Your task to perform on an android device: delete browsing data in the chrome app Image 0: 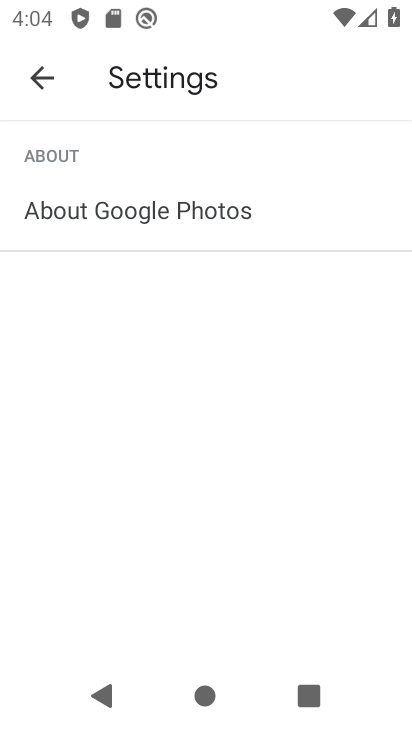
Step 0: press home button
Your task to perform on an android device: delete browsing data in the chrome app Image 1: 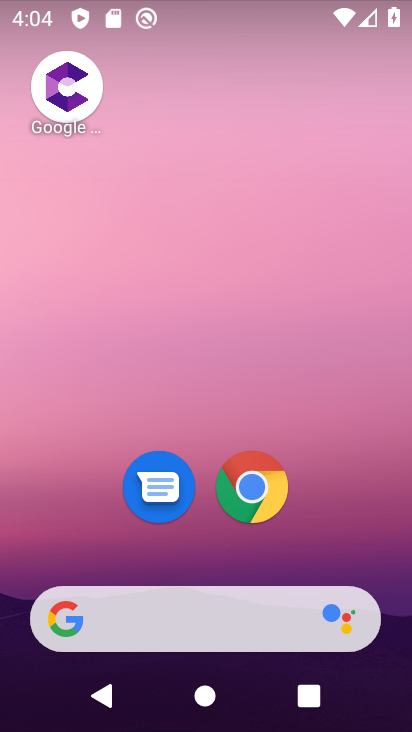
Step 1: drag from (356, 539) to (368, 104)
Your task to perform on an android device: delete browsing data in the chrome app Image 2: 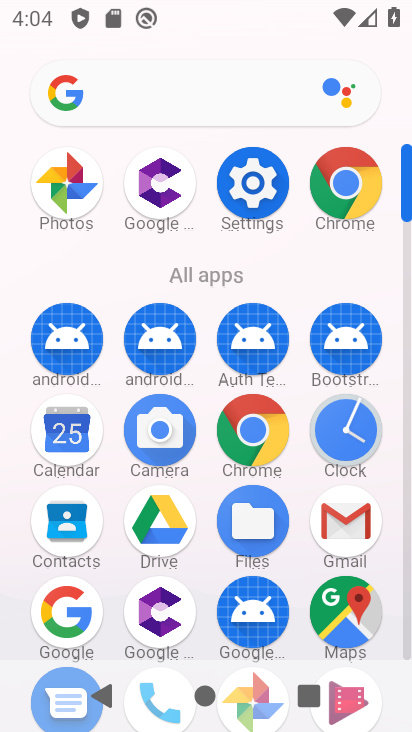
Step 2: click (359, 205)
Your task to perform on an android device: delete browsing data in the chrome app Image 3: 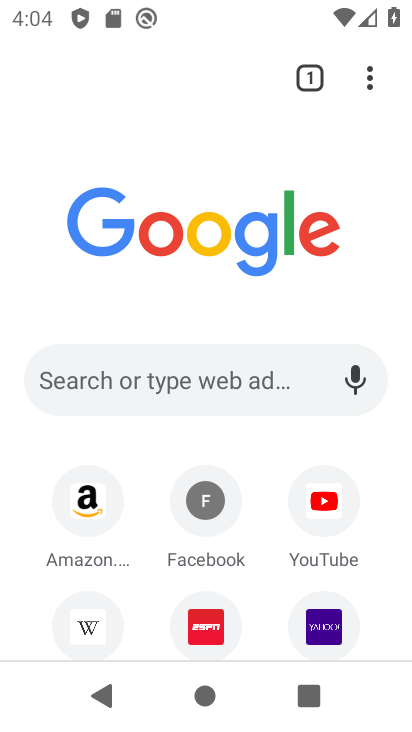
Step 3: click (369, 76)
Your task to perform on an android device: delete browsing data in the chrome app Image 4: 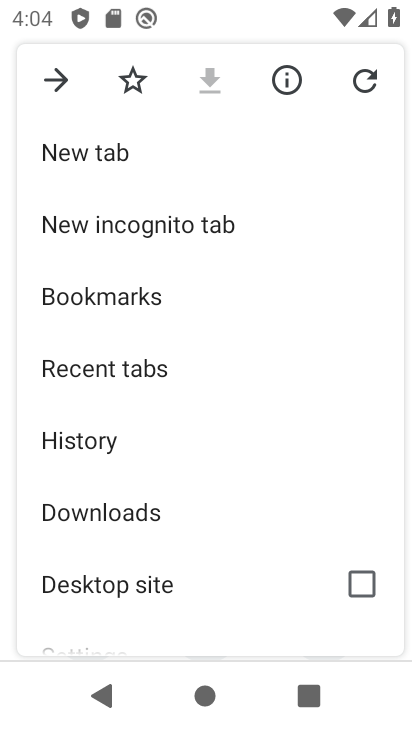
Step 4: drag from (284, 482) to (275, 346)
Your task to perform on an android device: delete browsing data in the chrome app Image 5: 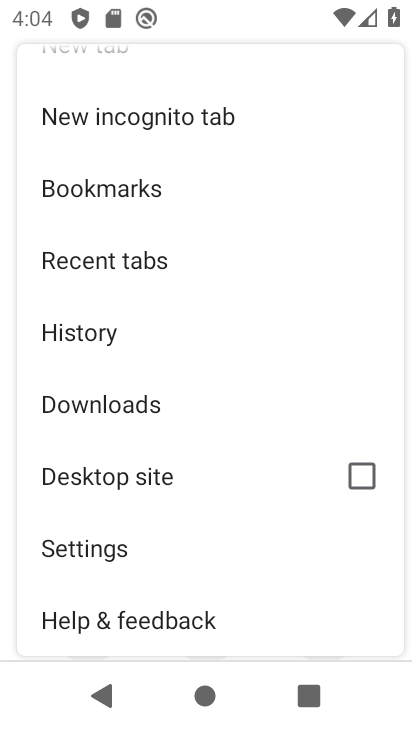
Step 5: drag from (275, 517) to (272, 397)
Your task to perform on an android device: delete browsing data in the chrome app Image 6: 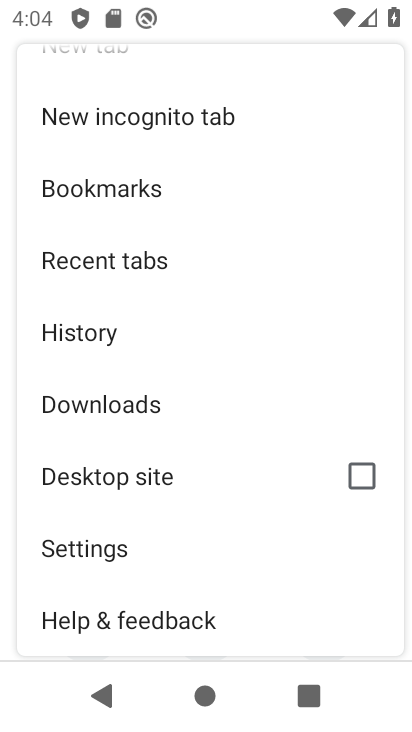
Step 6: click (170, 551)
Your task to perform on an android device: delete browsing data in the chrome app Image 7: 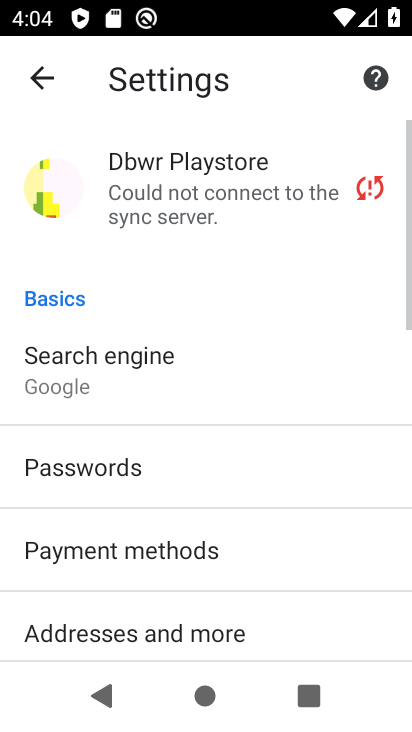
Step 7: drag from (296, 549) to (305, 416)
Your task to perform on an android device: delete browsing data in the chrome app Image 8: 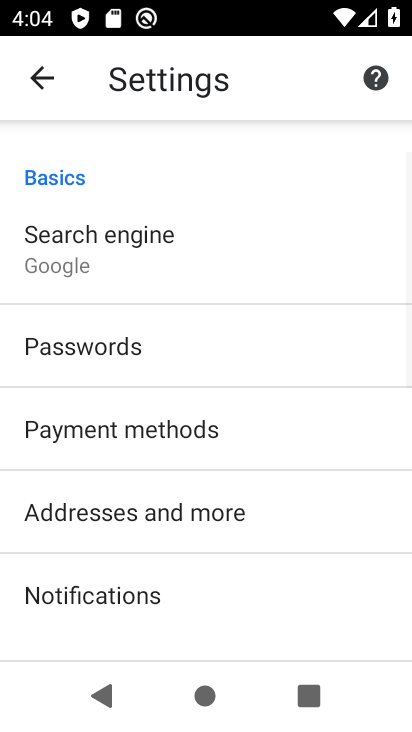
Step 8: drag from (319, 605) to (343, 439)
Your task to perform on an android device: delete browsing data in the chrome app Image 9: 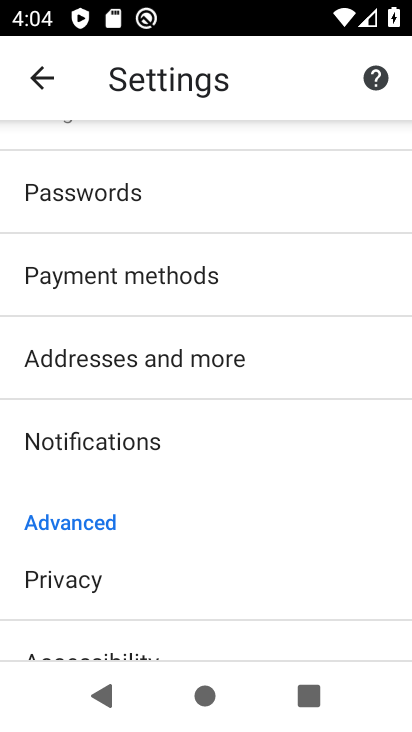
Step 9: drag from (319, 597) to (332, 412)
Your task to perform on an android device: delete browsing data in the chrome app Image 10: 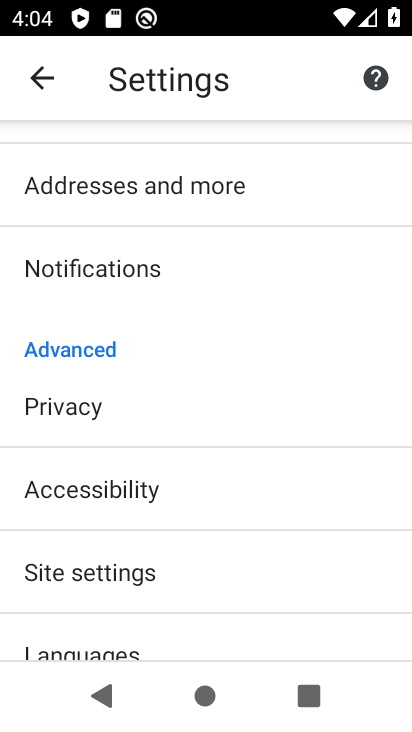
Step 10: drag from (316, 591) to (341, 421)
Your task to perform on an android device: delete browsing data in the chrome app Image 11: 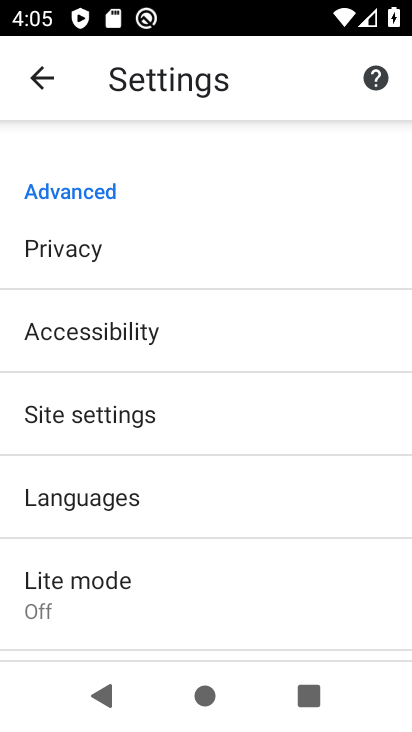
Step 11: drag from (296, 585) to (290, 441)
Your task to perform on an android device: delete browsing data in the chrome app Image 12: 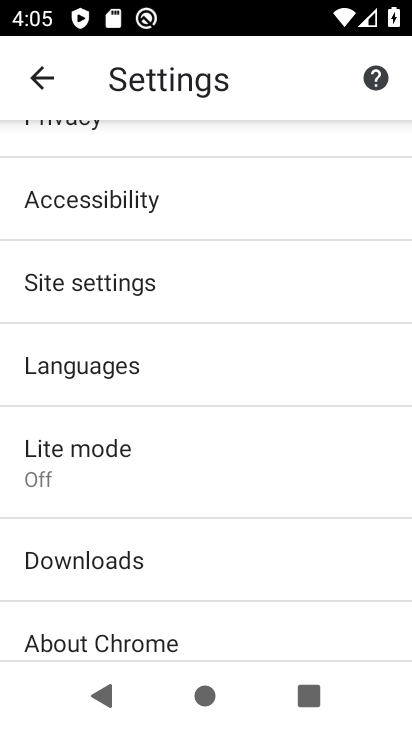
Step 12: drag from (305, 606) to (322, 376)
Your task to perform on an android device: delete browsing data in the chrome app Image 13: 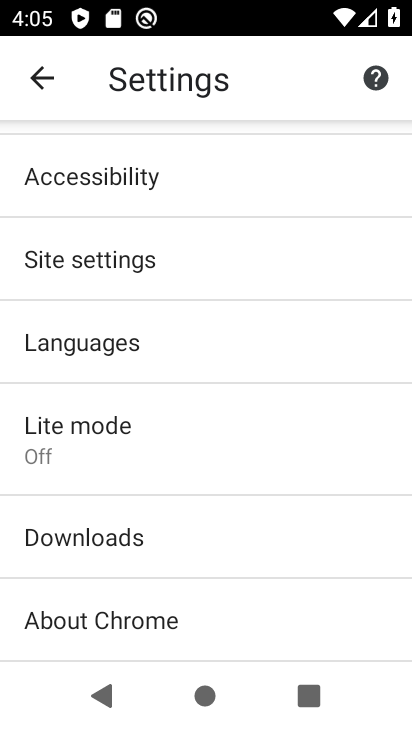
Step 13: drag from (313, 243) to (307, 347)
Your task to perform on an android device: delete browsing data in the chrome app Image 14: 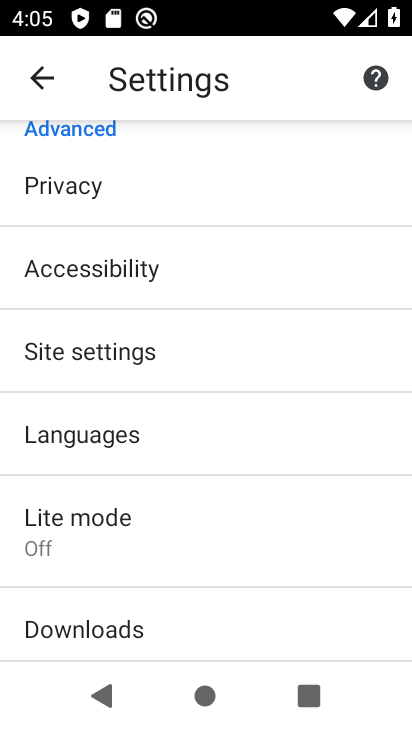
Step 14: drag from (320, 283) to (317, 367)
Your task to perform on an android device: delete browsing data in the chrome app Image 15: 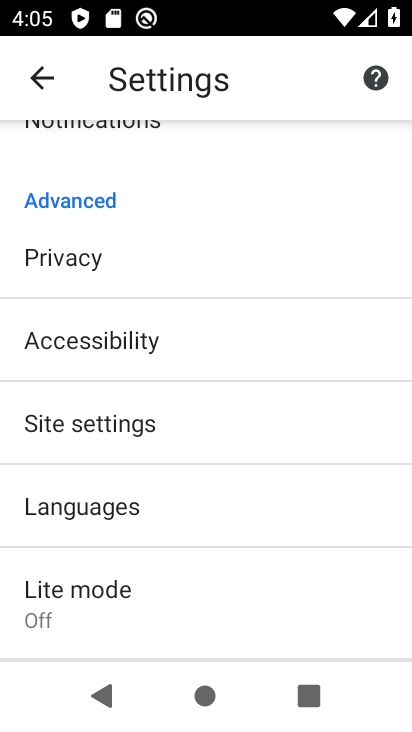
Step 15: click (238, 265)
Your task to perform on an android device: delete browsing data in the chrome app Image 16: 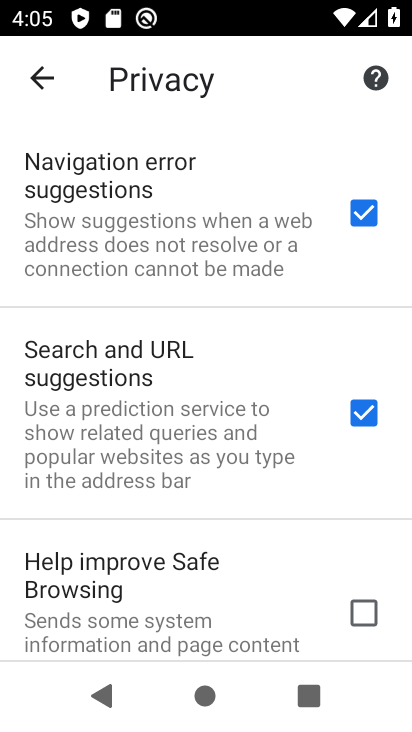
Step 16: drag from (280, 560) to (293, 400)
Your task to perform on an android device: delete browsing data in the chrome app Image 17: 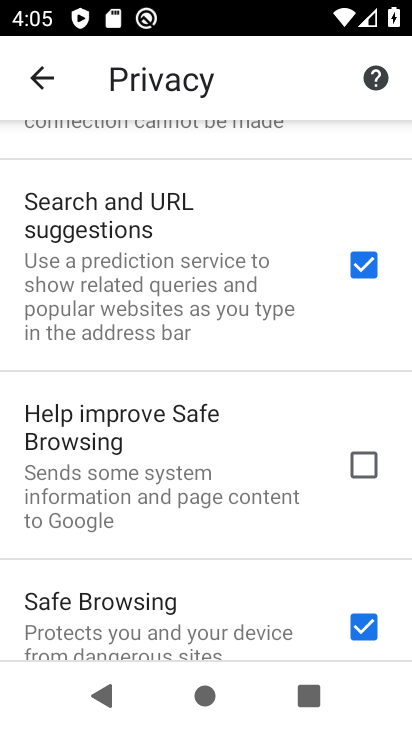
Step 17: drag from (291, 578) to (296, 413)
Your task to perform on an android device: delete browsing data in the chrome app Image 18: 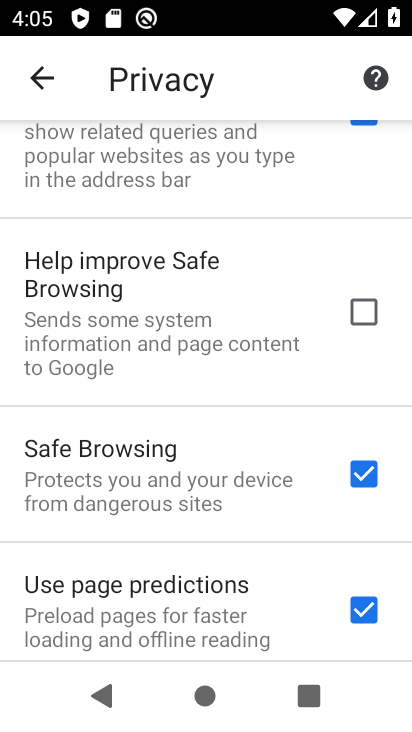
Step 18: drag from (298, 605) to (289, 434)
Your task to perform on an android device: delete browsing data in the chrome app Image 19: 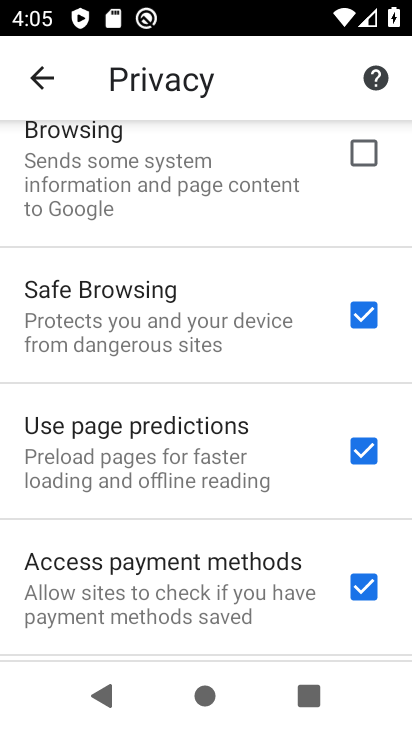
Step 19: drag from (299, 623) to (298, 435)
Your task to perform on an android device: delete browsing data in the chrome app Image 20: 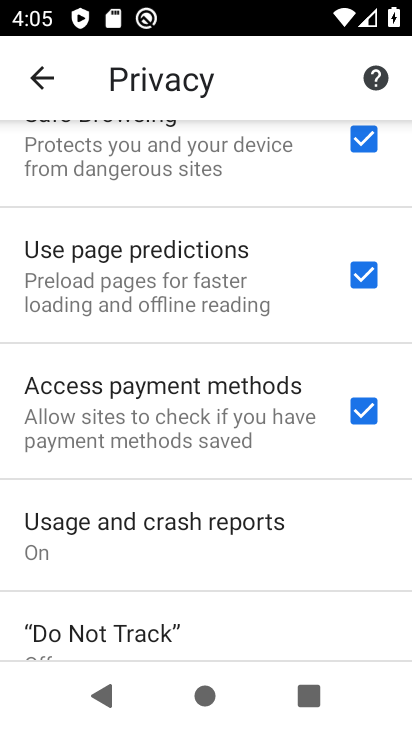
Step 20: drag from (281, 604) to (286, 441)
Your task to perform on an android device: delete browsing data in the chrome app Image 21: 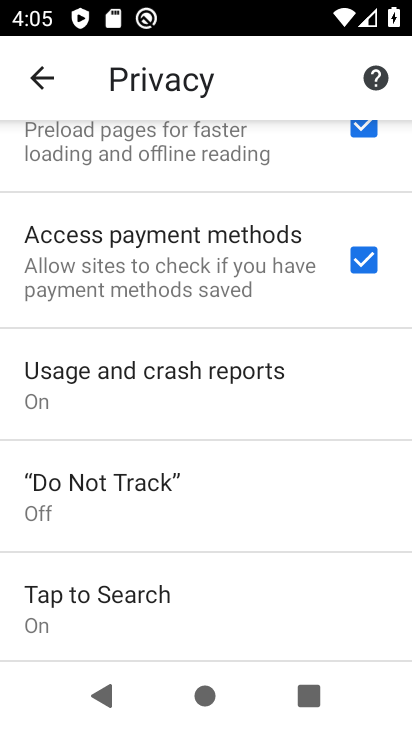
Step 21: drag from (252, 594) to (252, 383)
Your task to perform on an android device: delete browsing data in the chrome app Image 22: 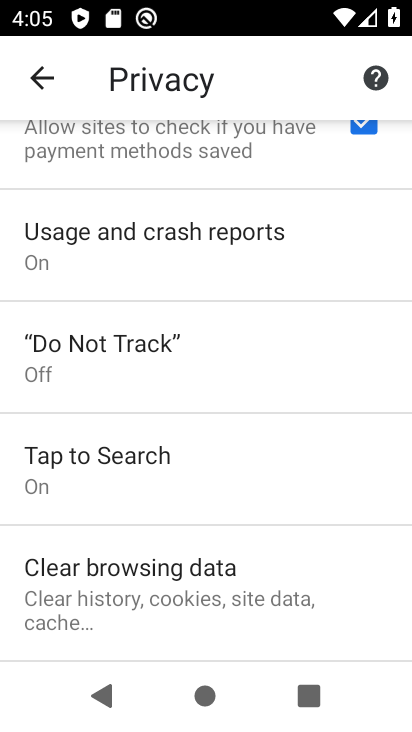
Step 22: click (237, 588)
Your task to perform on an android device: delete browsing data in the chrome app Image 23: 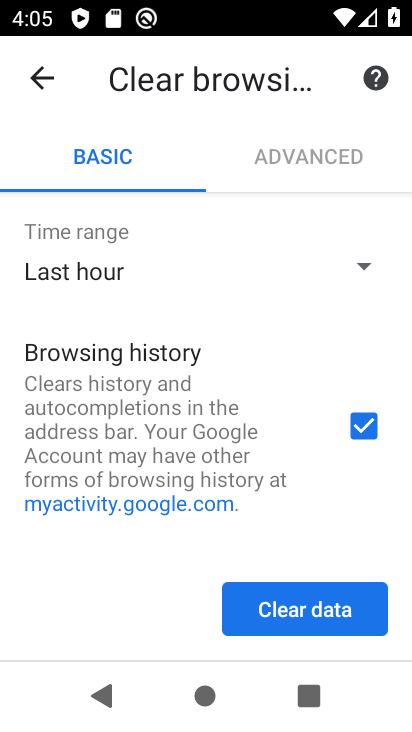
Step 23: click (303, 618)
Your task to perform on an android device: delete browsing data in the chrome app Image 24: 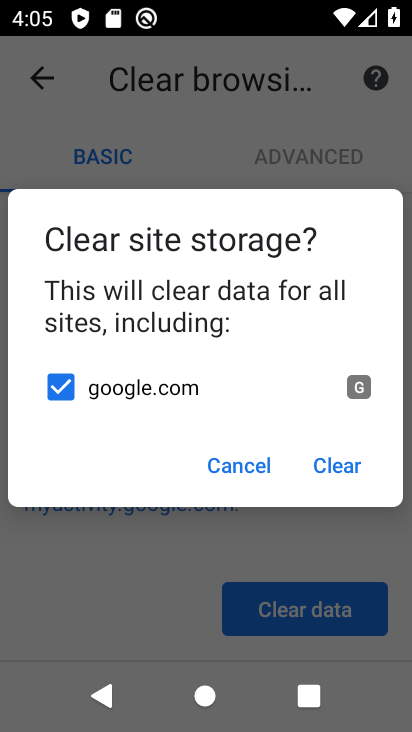
Step 24: click (340, 464)
Your task to perform on an android device: delete browsing data in the chrome app Image 25: 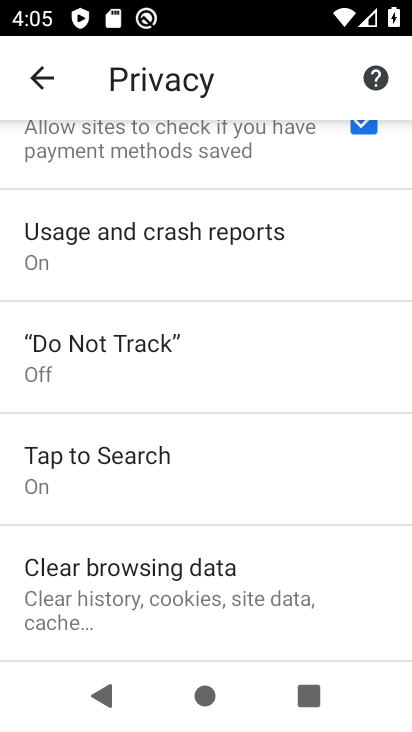
Step 25: task complete